Your task to perform on an android device: turn off improve location accuracy Image 0: 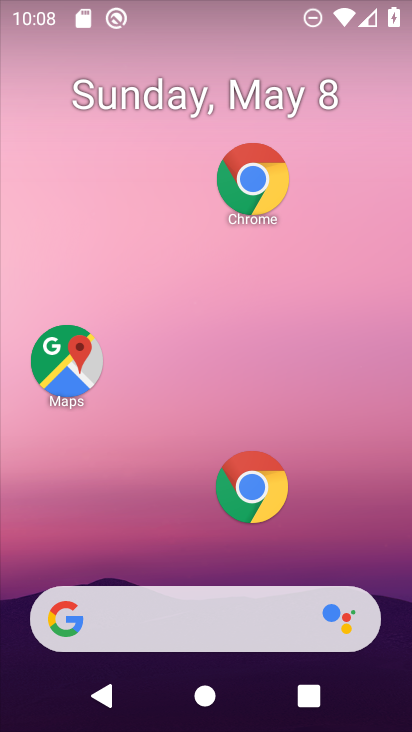
Step 0: drag from (201, 549) to (211, 98)
Your task to perform on an android device: turn off improve location accuracy Image 1: 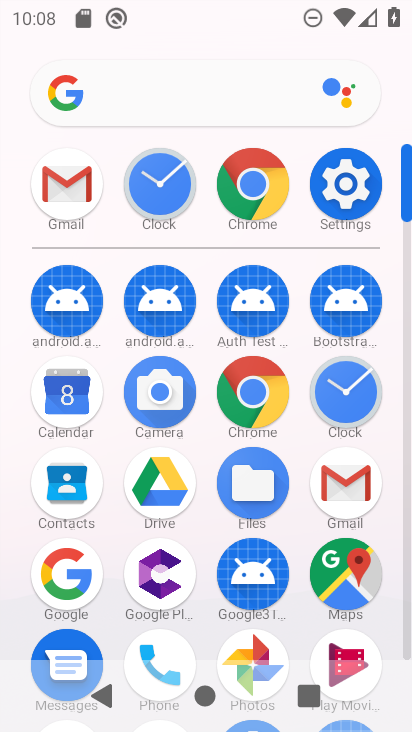
Step 1: click (322, 183)
Your task to perform on an android device: turn off improve location accuracy Image 2: 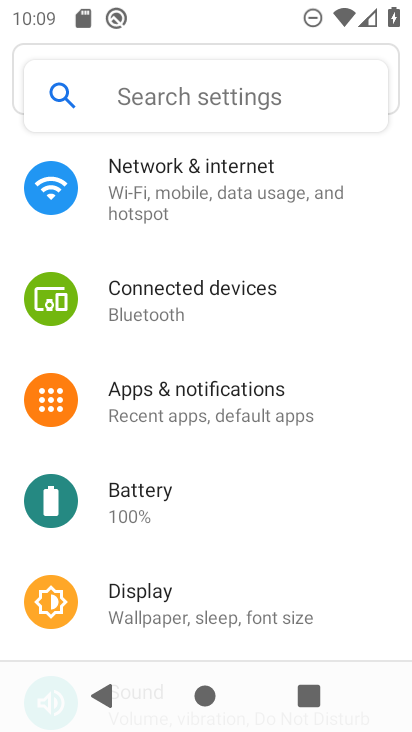
Step 2: drag from (207, 577) to (308, 60)
Your task to perform on an android device: turn off improve location accuracy Image 3: 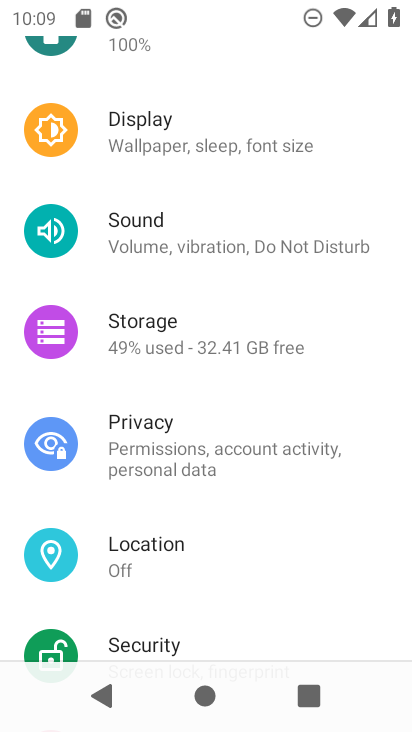
Step 3: click (251, 553)
Your task to perform on an android device: turn off improve location accuracy Image 4: 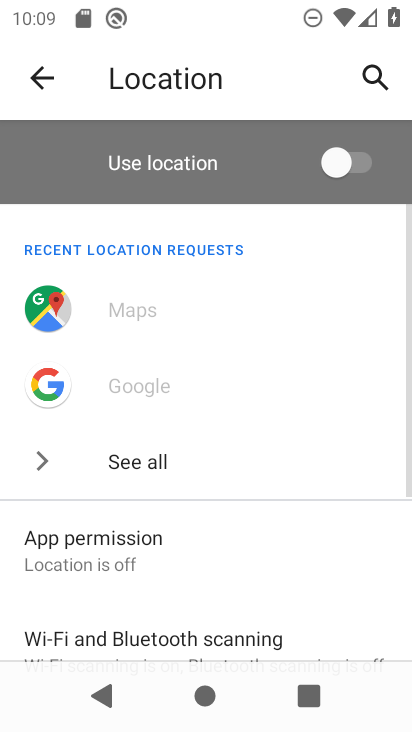
Step 4: drag from (290, 536) to (302, 228)
Your task to perform on an android device: turn off improve location accuracy Image 5: 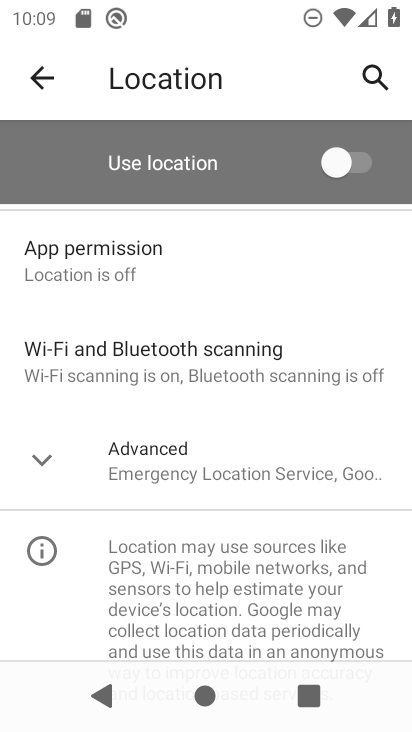
Step 5: click (41, 450)
Your task to perform on an android device: turn off improve location accuracy Image 6: 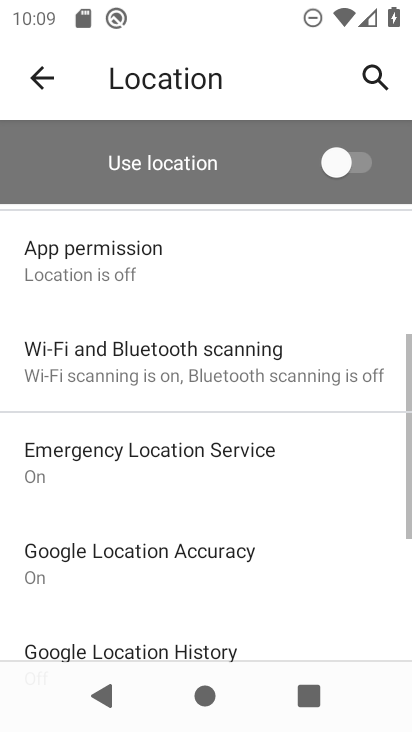
Step 6: drag from (226, 609) to (287, 443)
Your task to perform on an android device: turn off improve location accuracy Image 7: 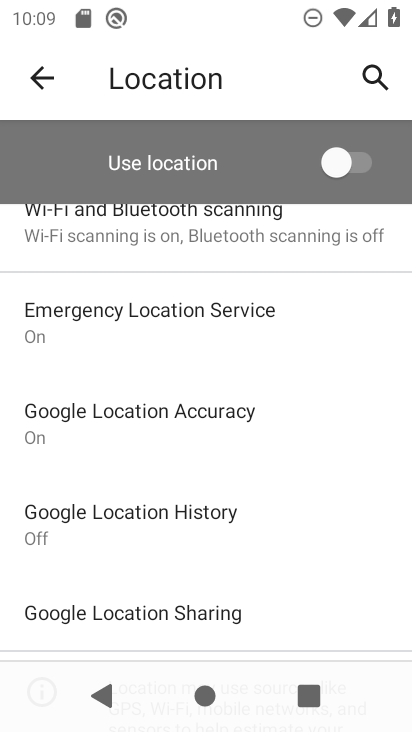
Step 7: click (249, 414)
Your task to perform on an android device: turn off improve location accuracy Image 8: 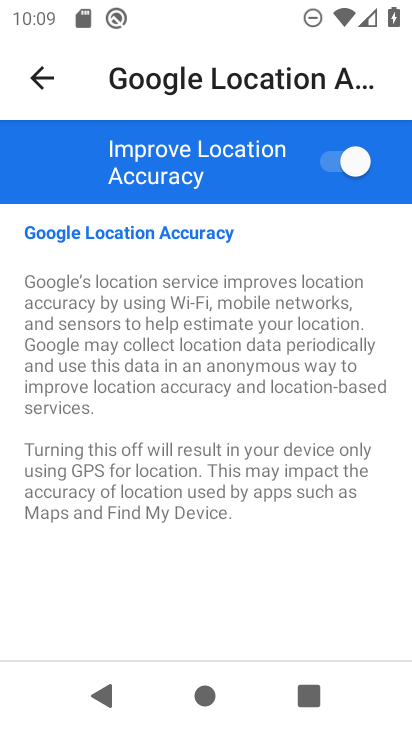
Step 8: click (341, 167)
Your task to perform on an android device: turn off improve location accuracy Image 9: 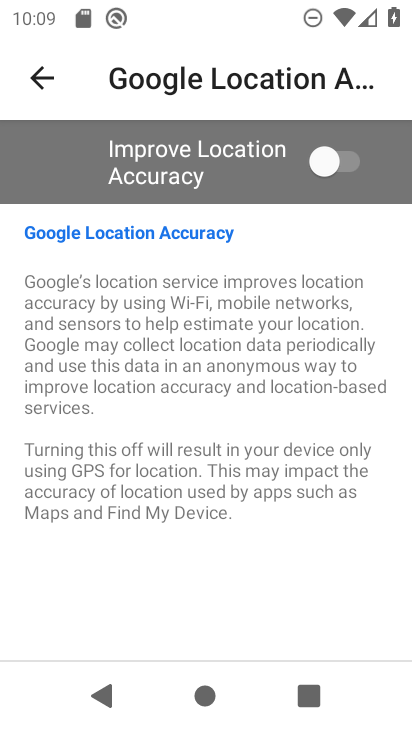
Step 9: task complete